Your task to perform on an android device: Open Reddit.com Image 0: 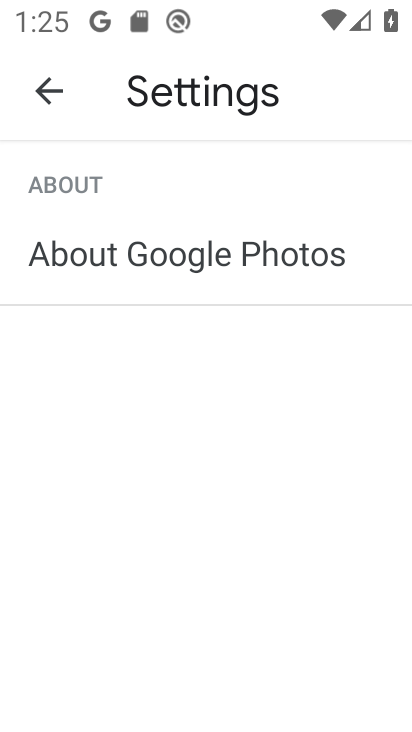
Step 0: press home button
Your task to perform on an android device: Open Reddit.com Image 1: 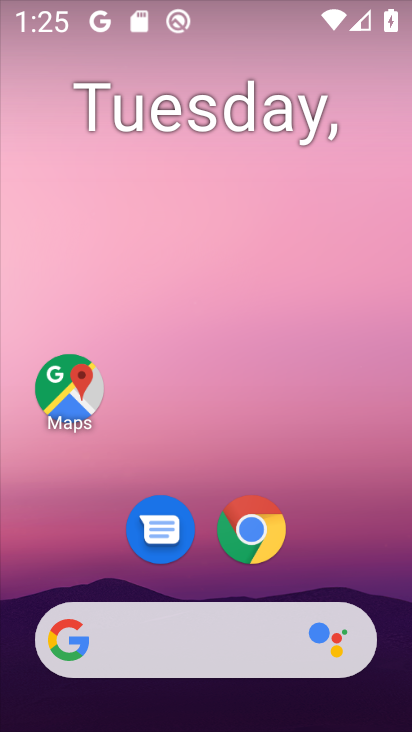
Step 1: click (256, 521)
Your task to perform on an android device: Open Reddit.com Image 2: 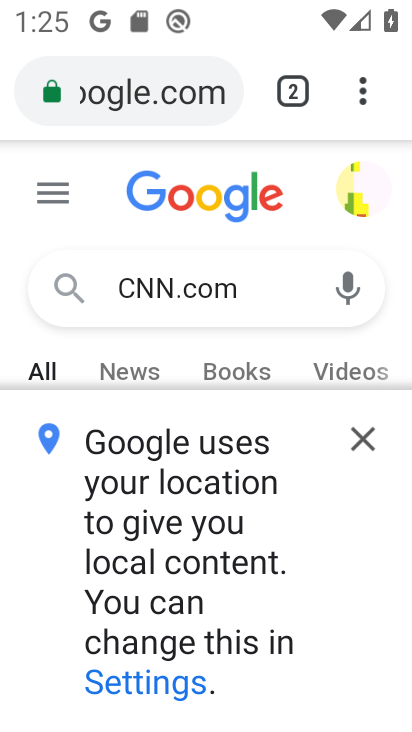
Step 2: press back button
Your task to perform on an android device: Open Reddit.com Image 3: 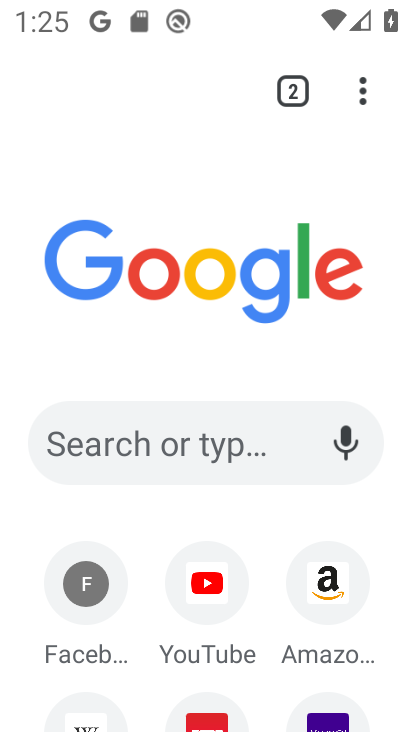
Step 3: click (217, 432)
Your task to perform on an android device: Open Reddit.com Image 4: 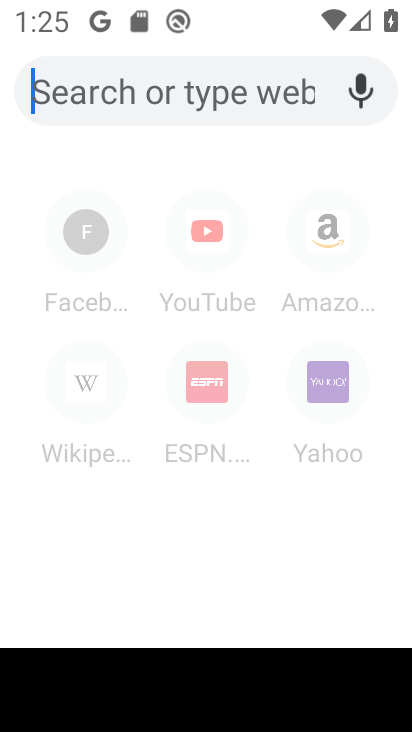
Step 4: type "Reddit.com"
Your task to perform on an android device: Open Reddit.com Image 5: 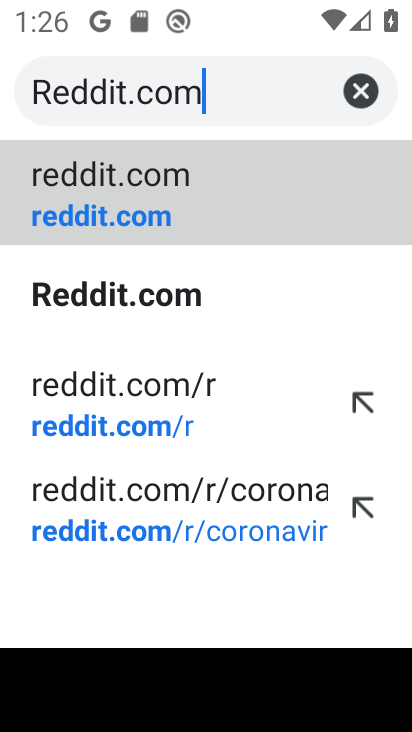
Step 5: click (104, 208)
Your task to perform on an android device: Open Reddit.com Image 6: 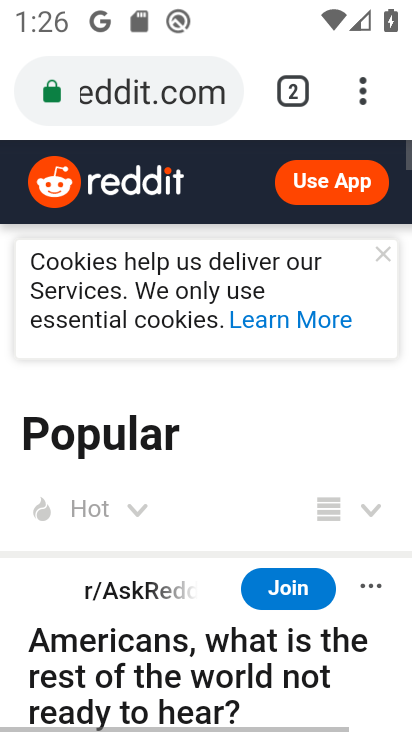
Step 6: task complete